Your task to perform on an android device: Is it going to rain this weekend? Image 0: 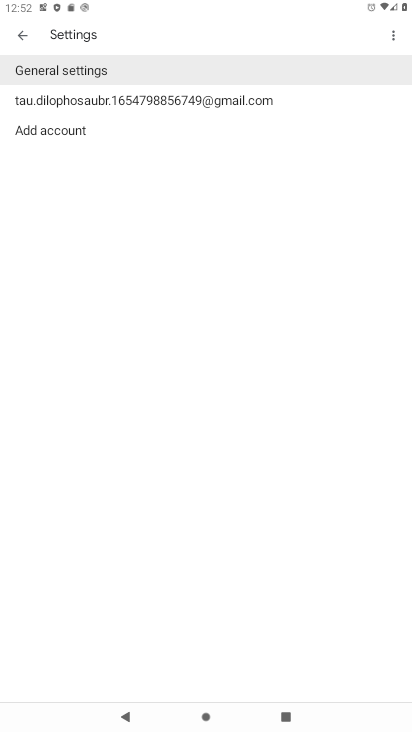
Step 0: press home button
Your task to perform on an android device: Is it going to rain this weekend? Image 1: 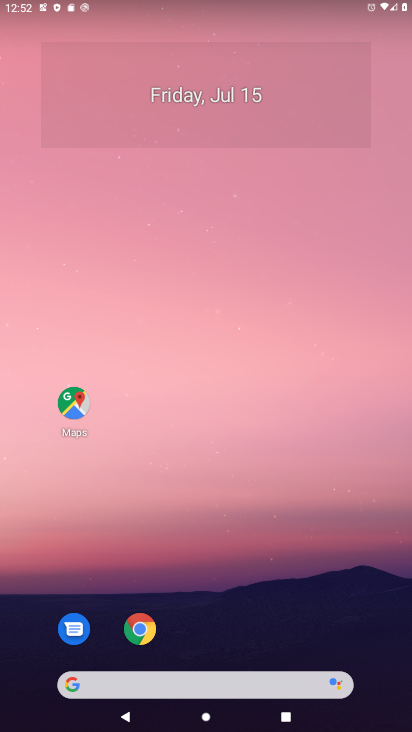
Step 1: click (73, 694)
Your task to perform on an android device: Is it going to rain this weekend? Image 2: 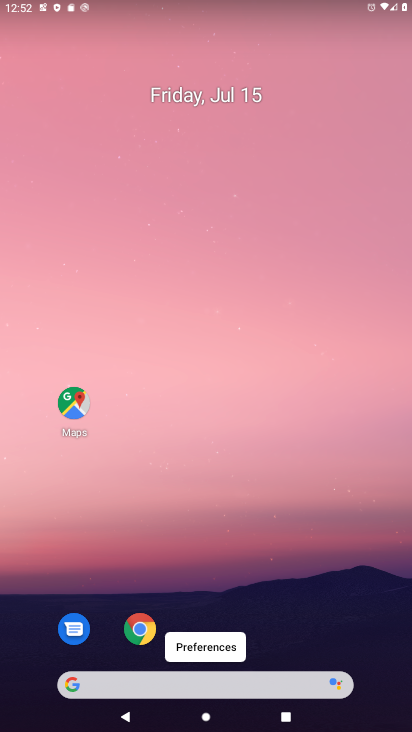
Step 2: click (76, 674)
Your task to perform on an android device: Is it going to rain this weekend? Image 3: 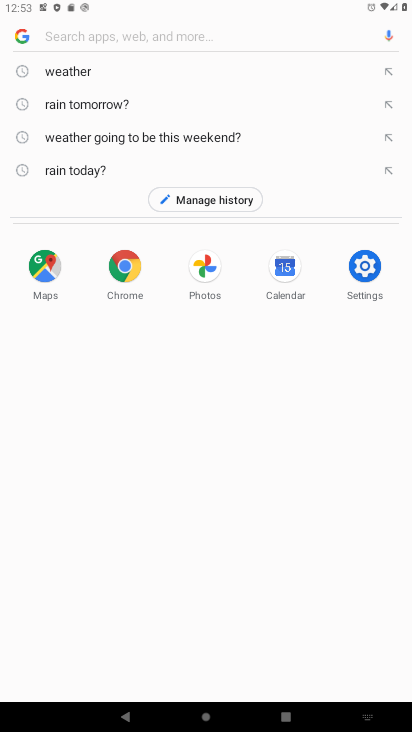
Step 3: type " rain this weekend?"
Your task to perform on an android device: Is it going to rain this weekend? Image 4: 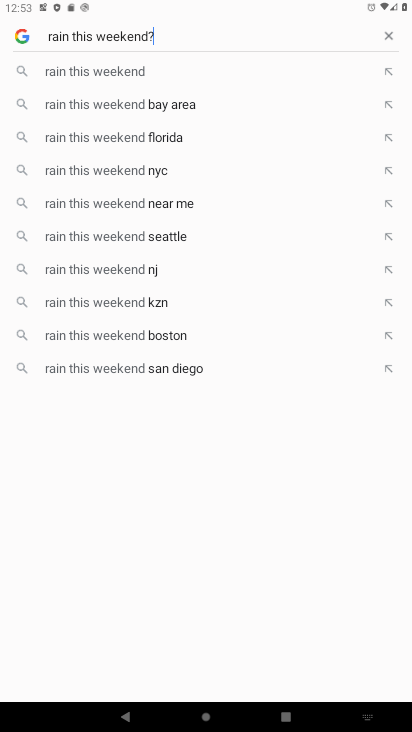
Step 4: press enter
Your task to perform on an android device: Is it going to rain this weekend? Image 5: 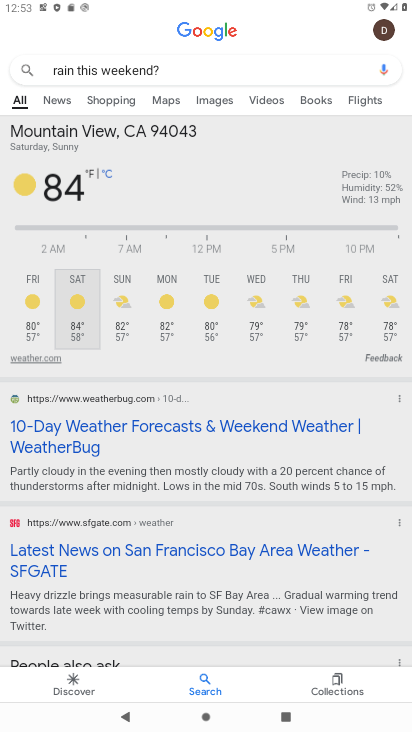
Step 5: task complete